Your task to perform on an android device: Open calendar and show me the third week of next month Image 0: 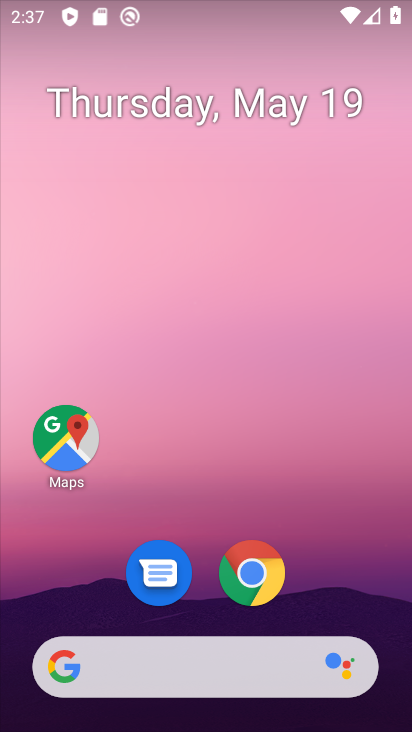
Step 0: drag from (355, 624) to (390, 81)
Your task to perform on an android device: Open calendar and show me the third week of next month Image 1: 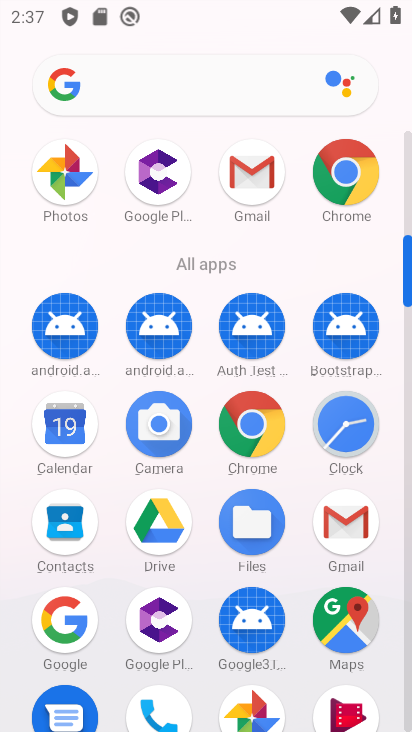
Step 1: click (64, 436)
Your task to perform on an android device: Open calendar and show me the third week of next month Image 2: 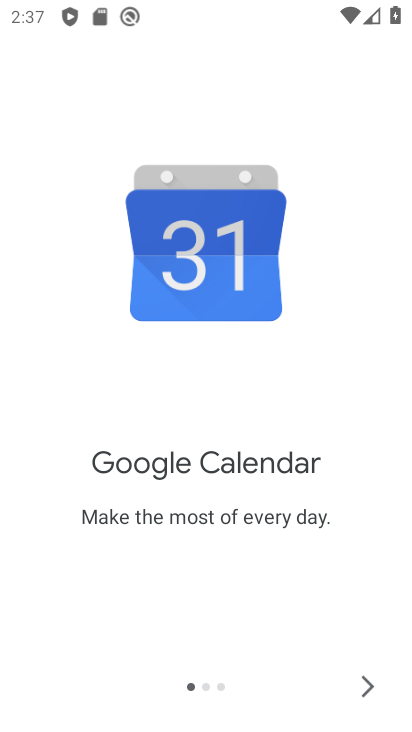
Step 2: click (366, 677)
Your task to perform on an android device: Open calendar and show me the third week of next month Image 3: 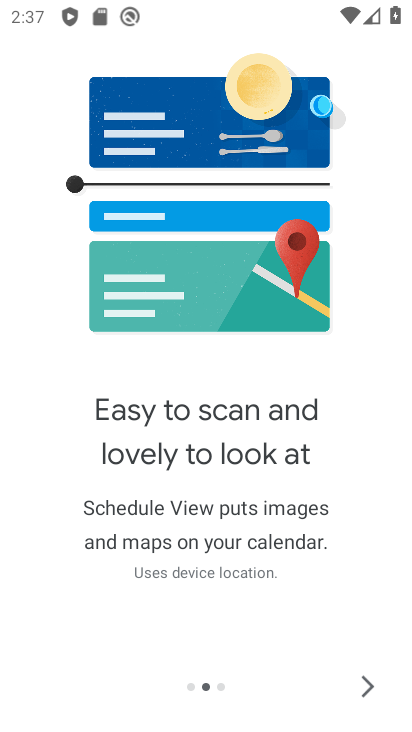
Step 3: click (366, 677)
Your task to perform on an android device: Open calendar and show me the third week of next month Image 4: 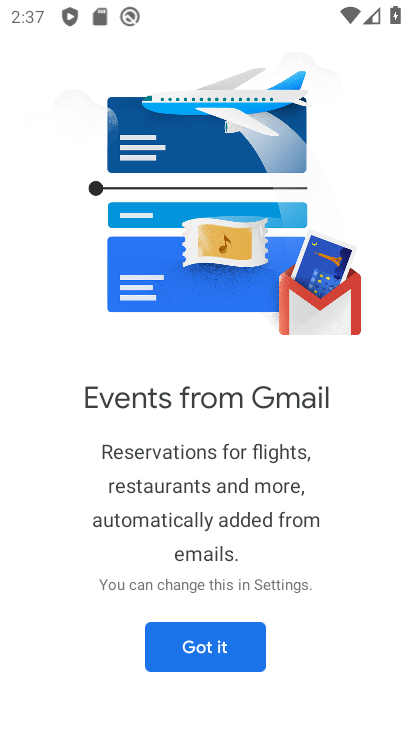
Step 4: click (258, 640)
Your task to perform on an android device: Open calendar and show me the third week of next month Image 5: 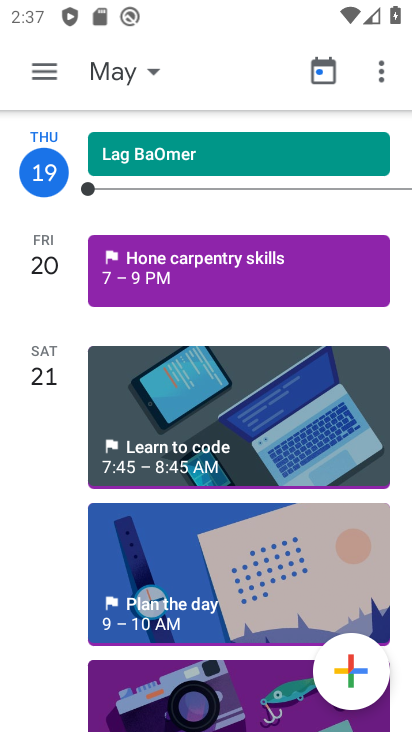
Step 5: click (39, 74)
Your task to perform on an android device: Open calendar and show me the third week of next month Image 6: 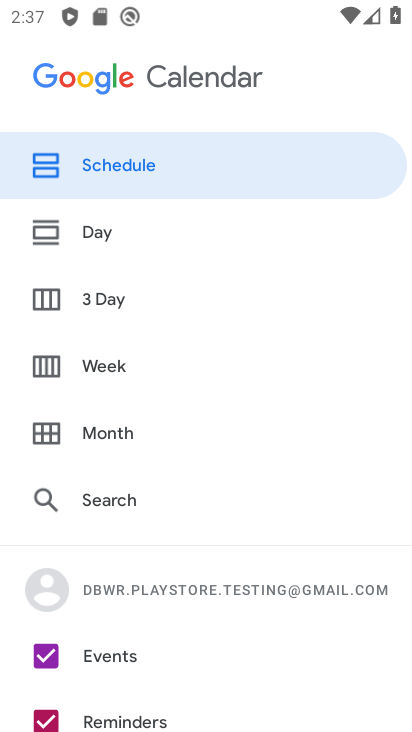
Step 6: click (140, 423)
Your task to perform on an android device: Open calendar and show me the third week of next month Image 7: 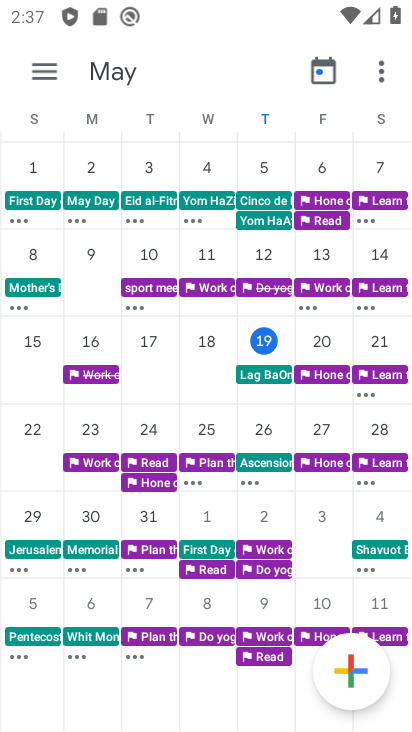
Step 7: drag from (398, 407) to (3, 385)
Your task to perform on an android device: Open calendar and show me the third week of next month Image 8: 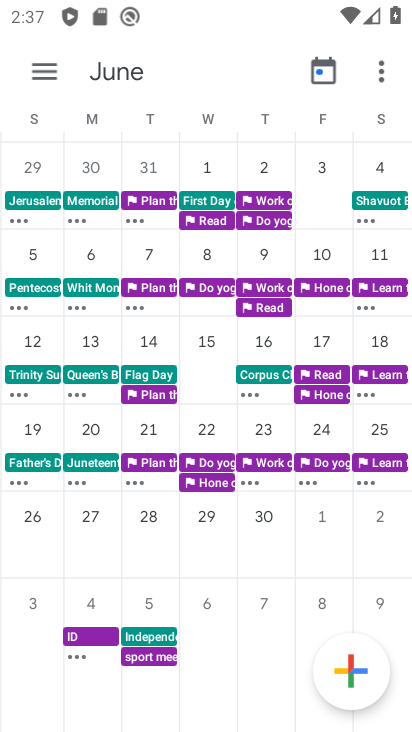
Step 8: click (142, 427)
Your task to perform on an android device: Open calendar and show me the third week of next month Image 9: 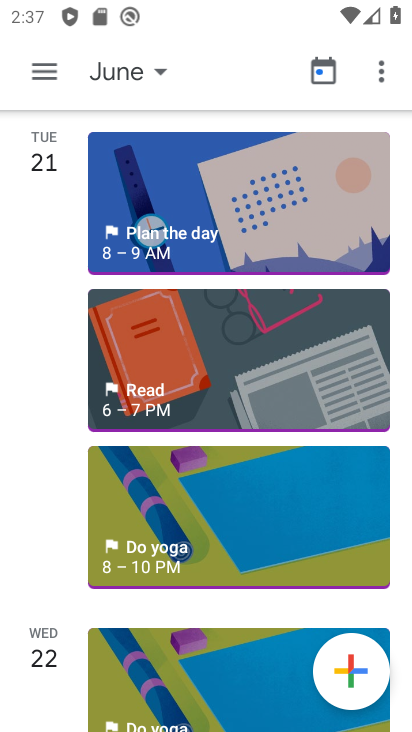
Step 9: task complete